Your task to perform on an android device: Open Google Maps and go to "Timeline" Image 0: 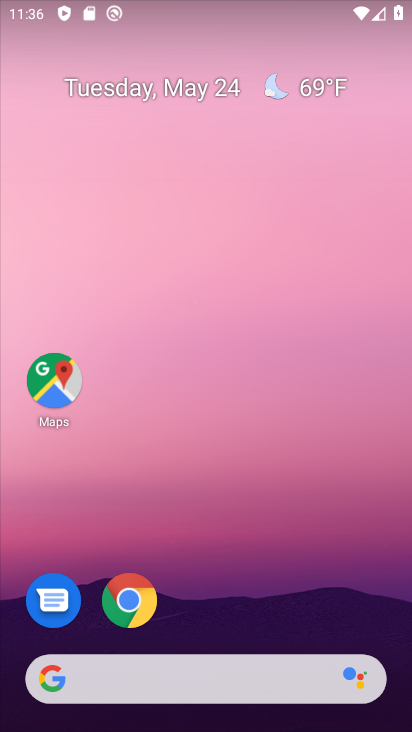
Step 0: drag from (376, 619) to (402, 180)
Your task to perform on an android device: Open Google Maps and go to "Timeline" Image 1: 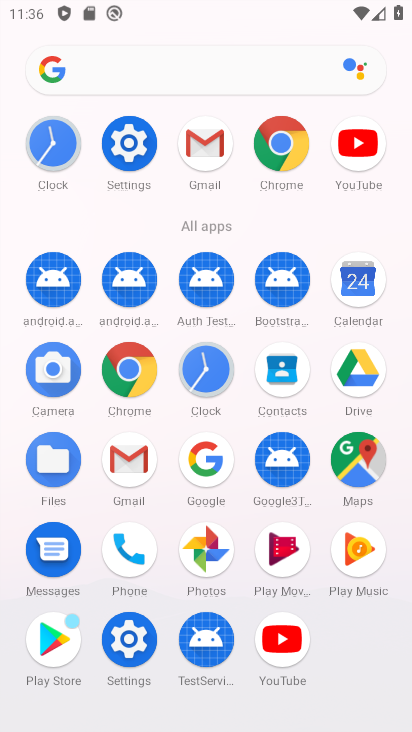
Step 1: click (365, 467)
Your task to perform on an android device: Open Google Maps and go to "Timeline" Image 2: 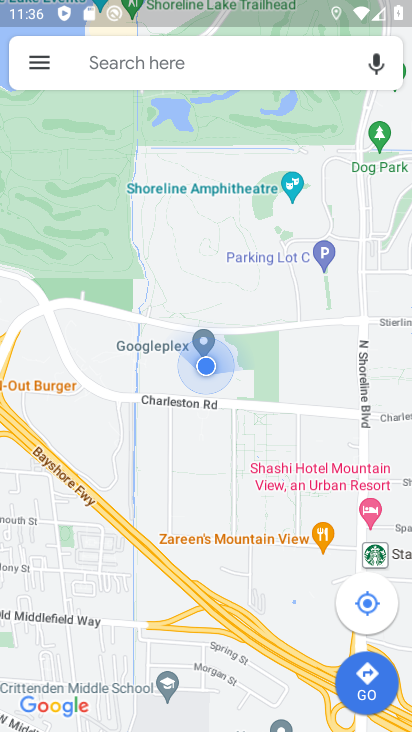
Step 2: click (25, 65)
Your task to perform on an android device: Open Google Maps and go to "Timeline" Image 3: 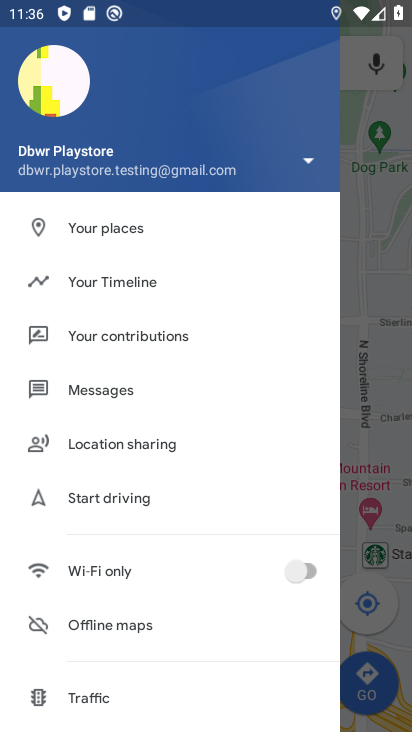
Step 3: drag from (261, 544) to (262, 377)
Your task to perform on an android device: Open Google Maps and go to "Timeline" Image 4: 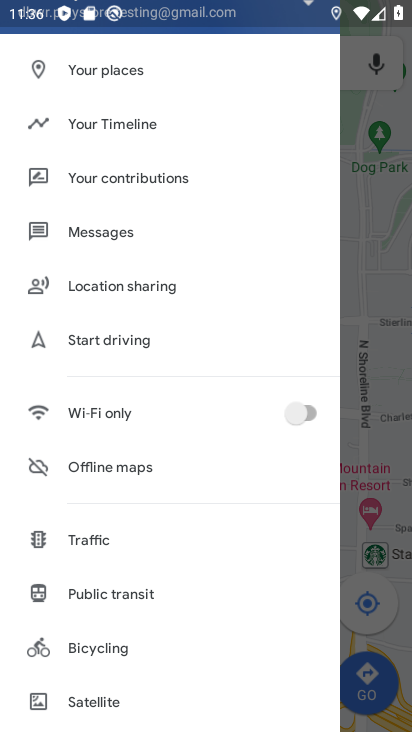
Step 4: drag from (228, 543) to (214, 381)
Your task to perform on an android device: Open Google Maps and go to "Timeline" Image 5: 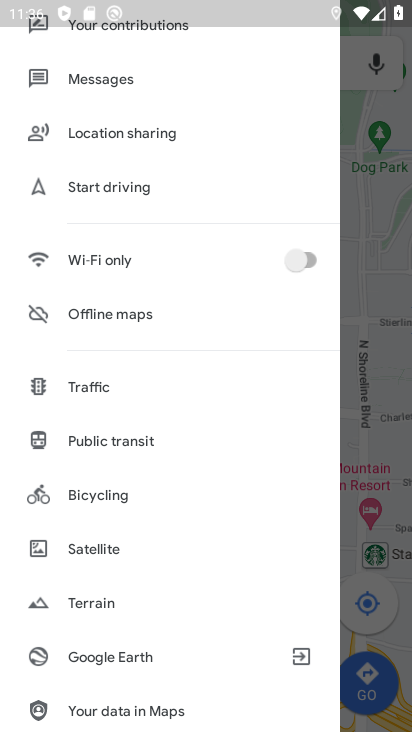
Step 5: drag from (229, 558) to (214, 428)
Your task to perform on an android device: Open Google Maps and go to "Timeline" Image 6: 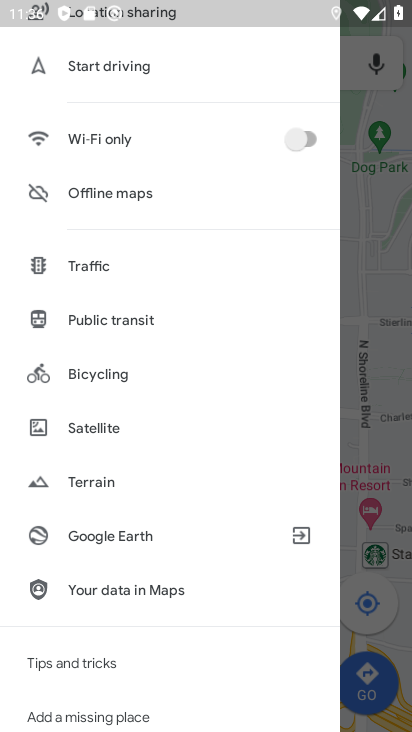
Step 6: drag from (213, 610) to (216, 417)
Your task to perform on an android device: Open Google Maps and go to "Timeline" Image 7: 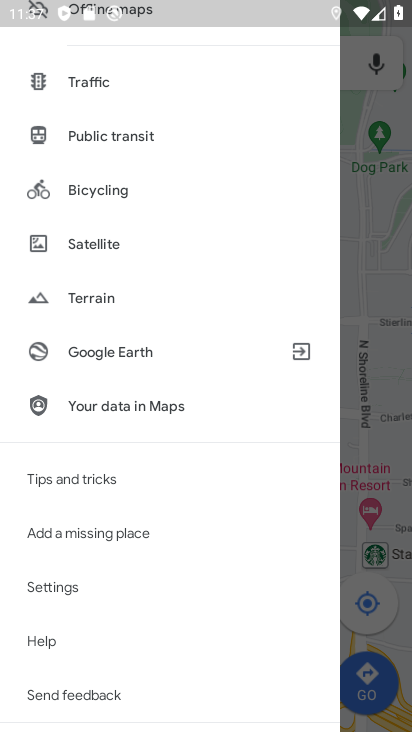
Step 7: drag from (207, 326) to (212, 420)
Your task to perform on an android device: Open Google Maps and go to "Timeline" Image 8: 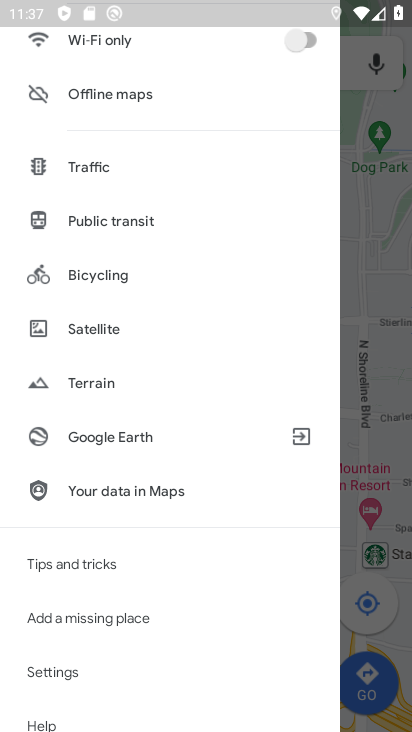
Step 8: drag from (223, 274) to (218, 345)
Your task to perform on an android device: Open Google Maps and go to "Timeline" Image 9: 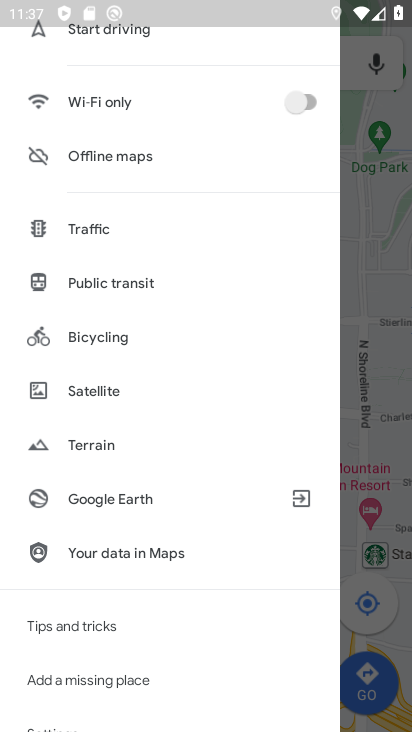
Step 9: drag from (237, 207) to (225, 387)
Your task to perform on an android device: Open Google Maps and go to "Timeline" Image 10: 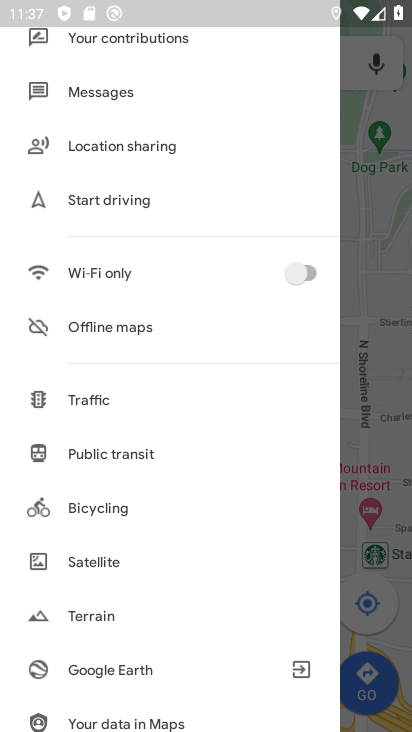
Step 10: drag from (215, 166) to (210, 321)
Your task to perform on an android device: Open Google Maps and go to "Timeline" Image 11: 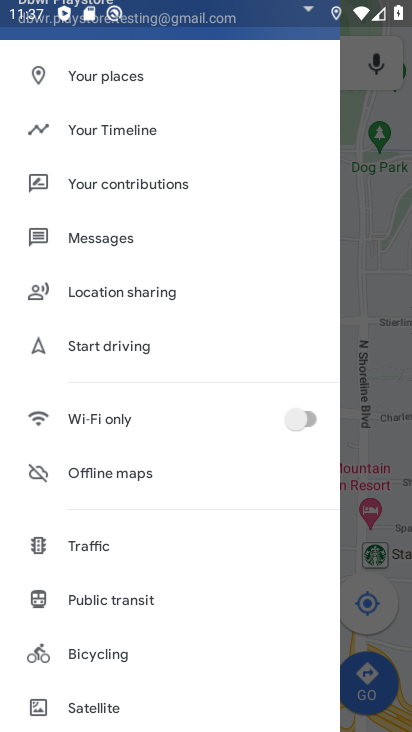
Step 11: drag from (230, 125) to (242, 311)
Your task to perform on an android device: Open Google Maps and go to "Timeline" Image 12: 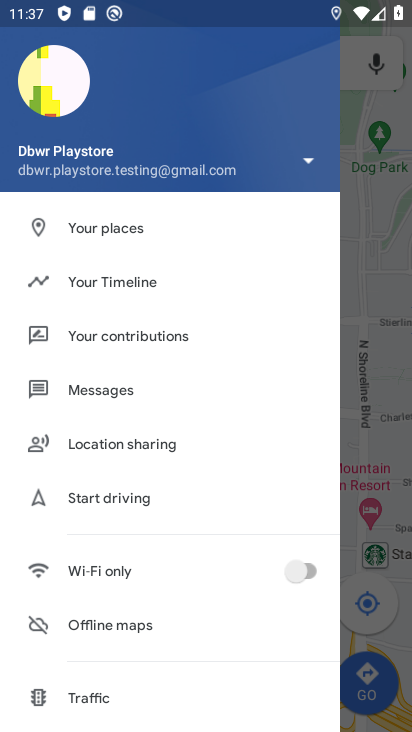
Step 12: click (152, 295)
Your task to perform on an android device: Open Google Maps and go to "Timeline" Image 13: 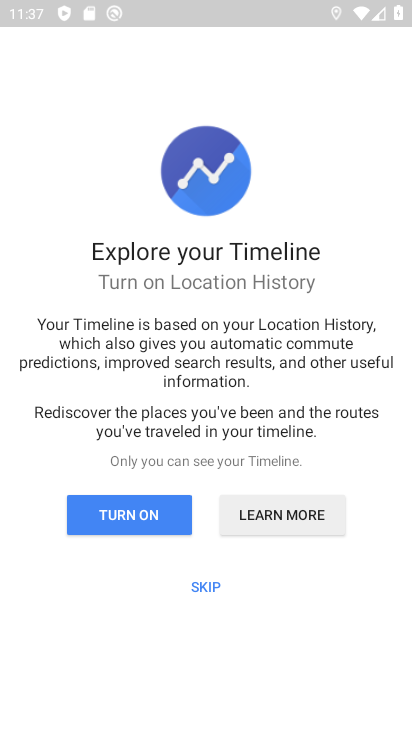
Step 13: task complete